Your task to perform on an android device: Clear the shopping cart on costco.com. Search for "dell xps" on costco.com, select the first entry, add it to the cart, then select checkout. Image 0: 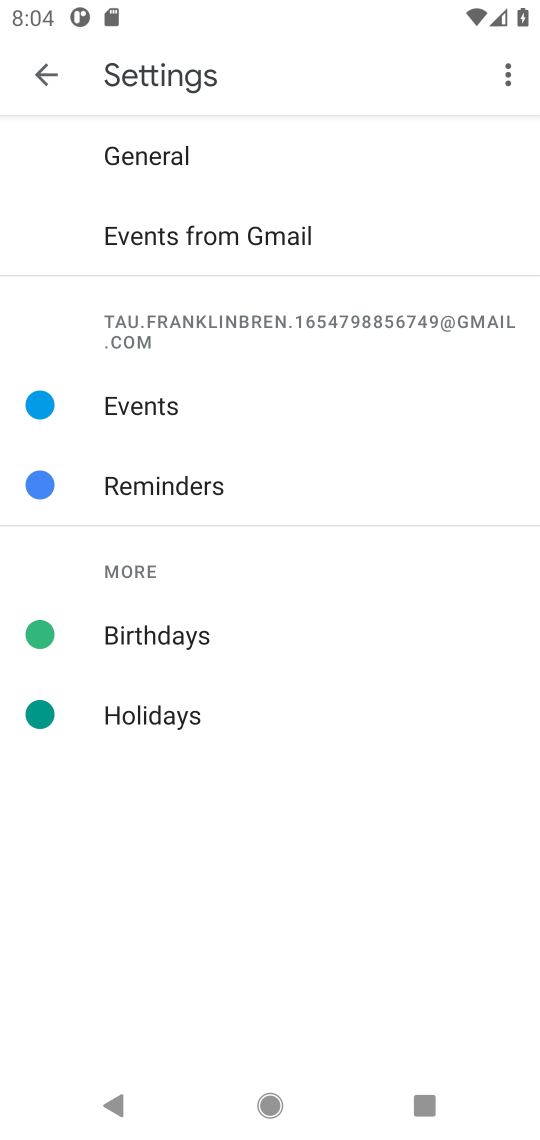
Step 0: press home button
Your task to perform on an android device: Clear the shopping cart on costco.com. Search for "dell xps" on costco.com, select the first entry, add it to the cart, then select checkout. Image 1: 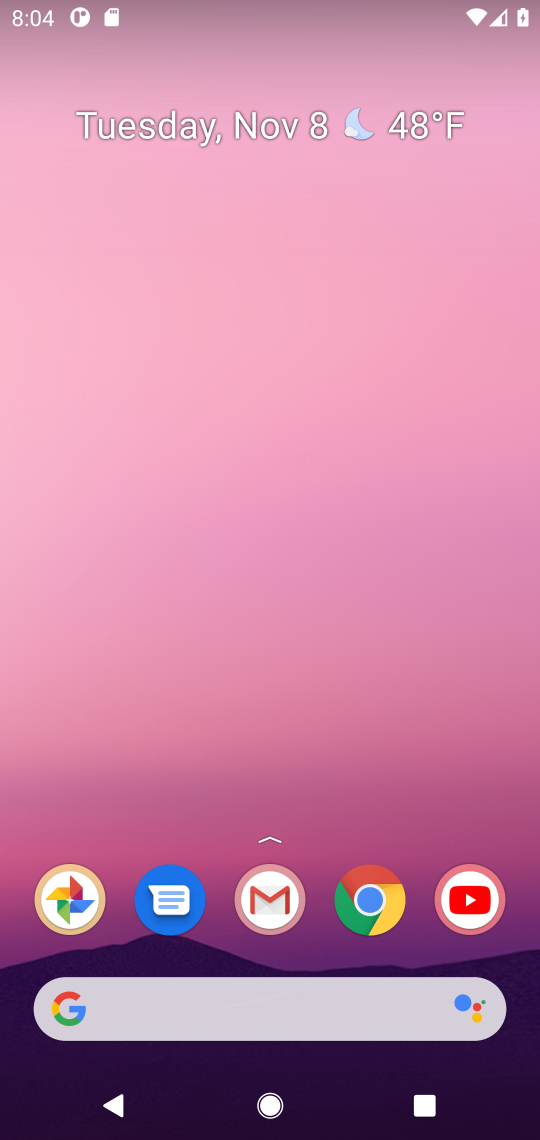
Step 1: drag from (216, 969) to (260, 119)
Your task to perform on an android device: Clear the shopping cart on costco.com. Search for "dell xps" on costco.com, select the first entry, add it to the cart, then select checkout. Image 2: 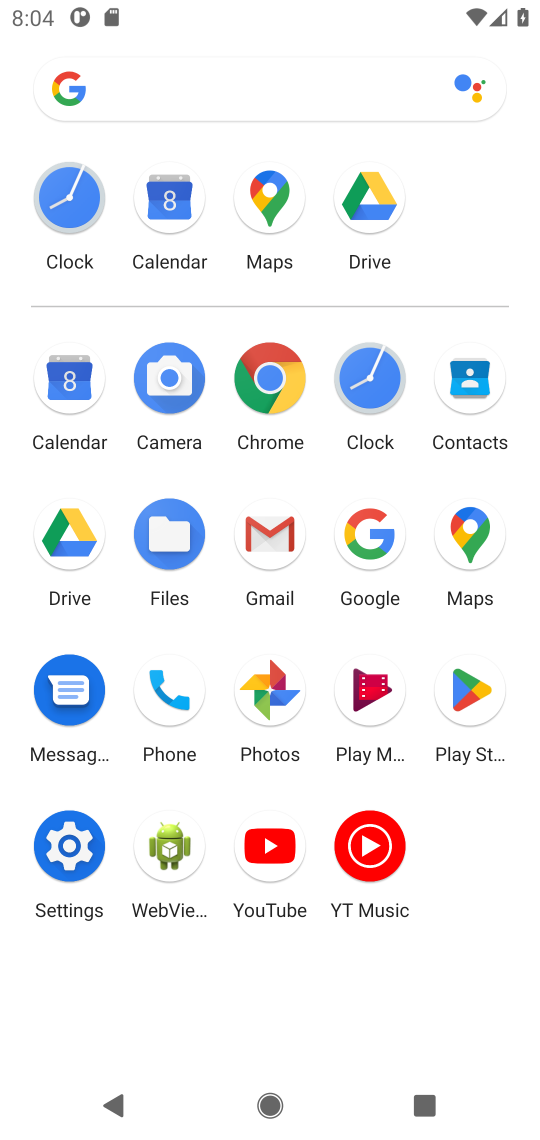
Step 2: click (377, 521)
Your task to perform on an android device: Clear the shopping cart on costco.com. Search for "dell xps" on costco.com, select the first entry, add it to the cart, then select checkout. Image 3: 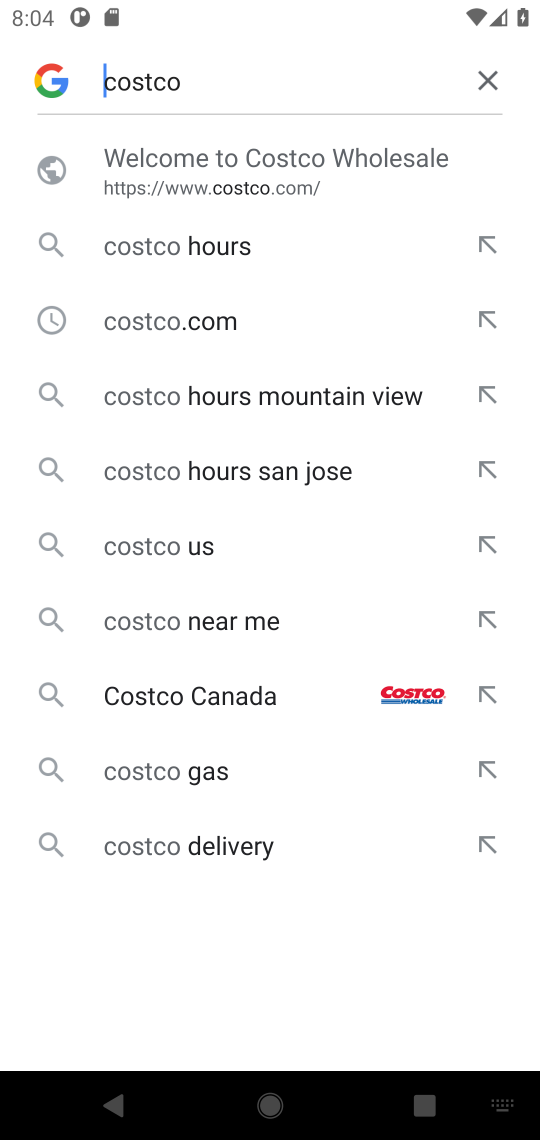
Step 3: click (348, 163)
Your task to perform on an android device: Clear the shopping cart on costco.com. Search for "dell xps" on costco.com, select the first entry, add it to the cart, then select checkout. Image 4: 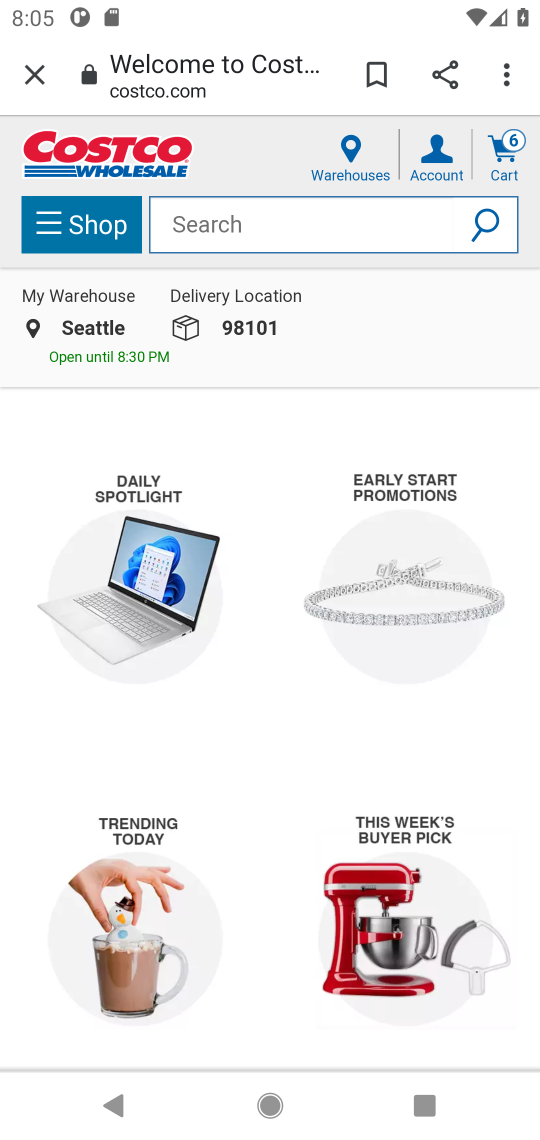
Step 4: click (261, 212)
Your task to perform on an android device: Clear the shopping cart on costco.com. Search for "dell xps" on costco.com, select the first entry, add it to the cart, then select checkout. Image 5: 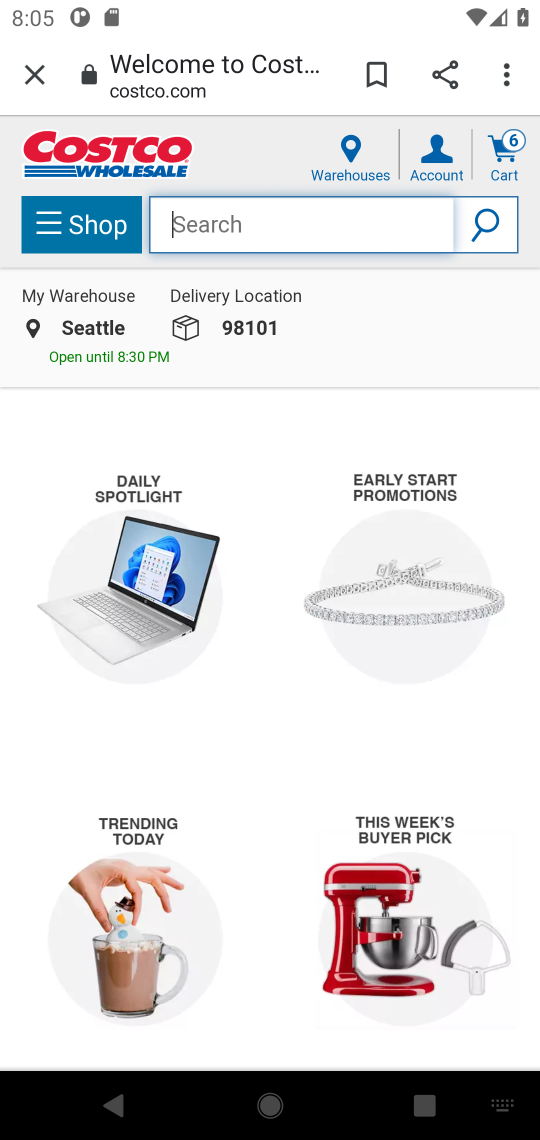
Step 5: click (213, 202)
Your task to perform on an android device: Clear the shopping cart on costco.com. Search for "dell xps" on costco.com, select the first entry, add it to the cart, then select checkout. Image 6: 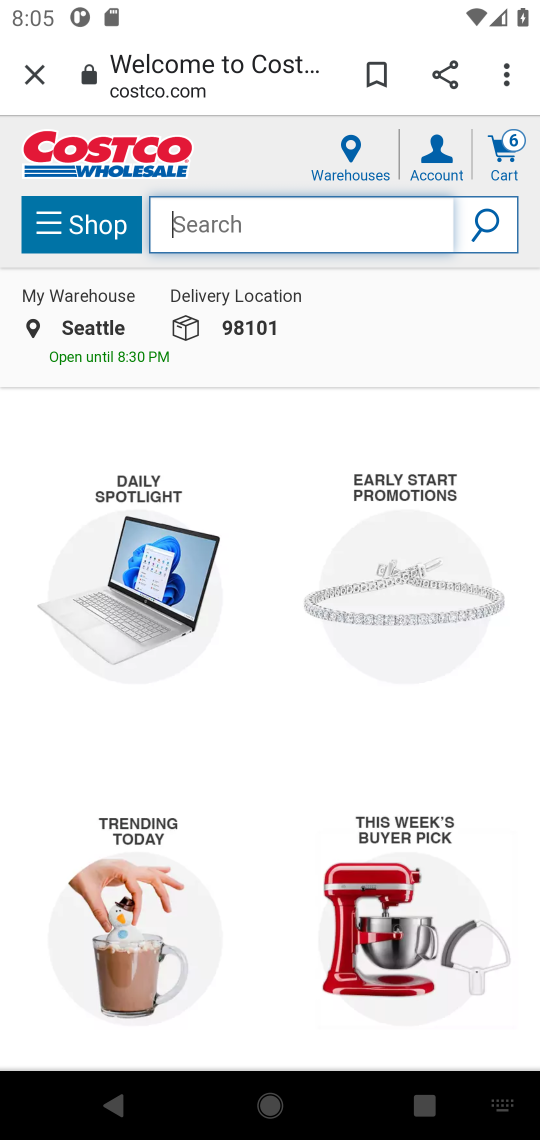
Step 6: type "dell xps "
Your task to perform on an android device: Clear the shopping cart on costco.com. Search for "dell xps" on costco.com, select the first entry, add it to the cart, then select checkout. Image 7: 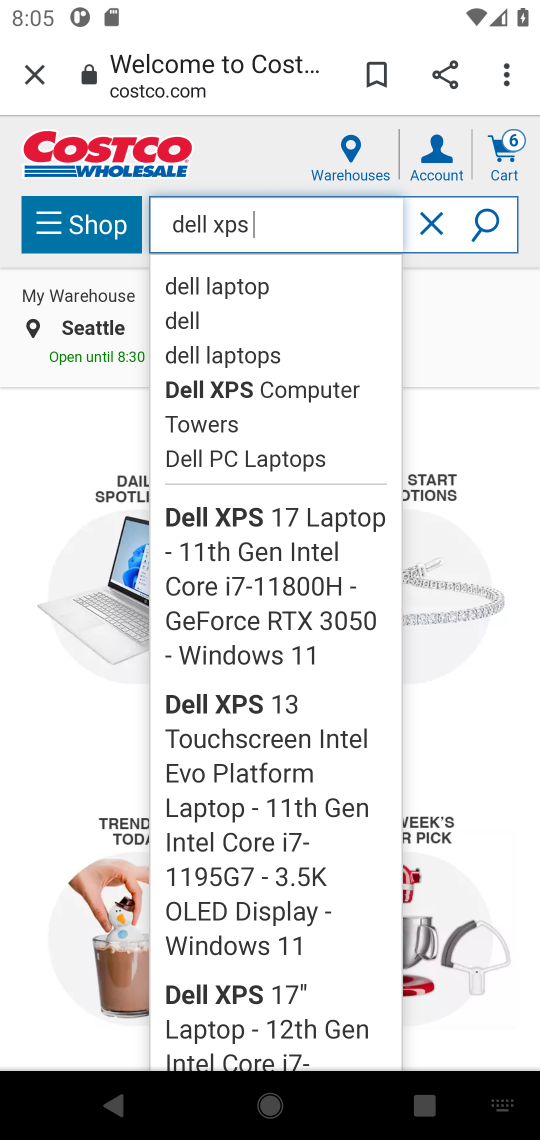
Step 7: drag from (238, 493) to (253, 552)
Your task to perform on an android device: Clear the shopping cart on costco.com. Search for "dell xps" on costco.com, select the first entry, add it to the cart, then select checkout. Image 8: 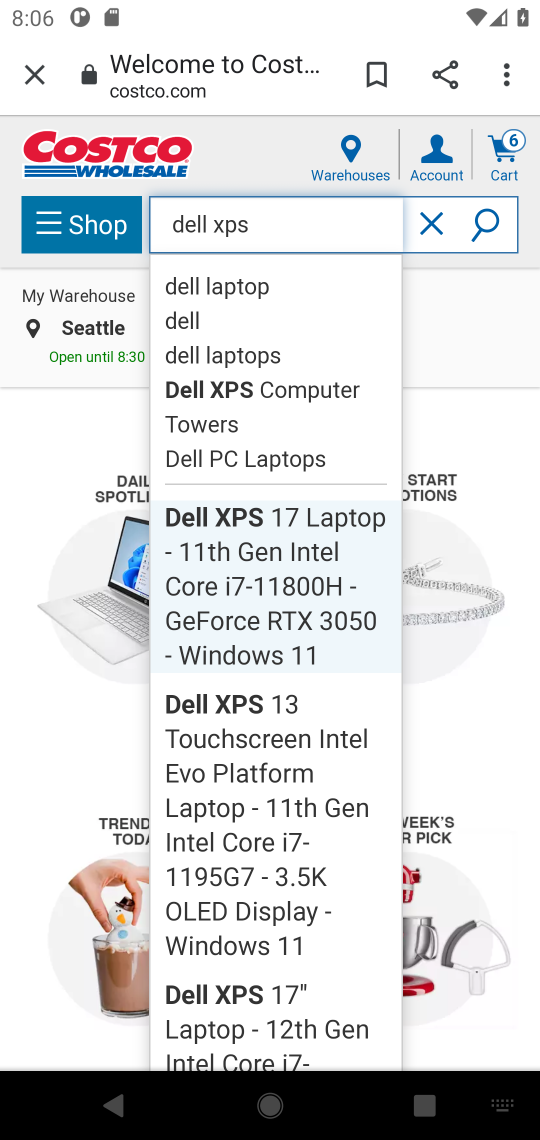
Step 8: click (208, 542)
Your task to perform on an android device: Clear the shopping cart on costco.com. Search for "dell xps" on costco.com, select the first entry, add it to the cart, then select checkout. Image 9: 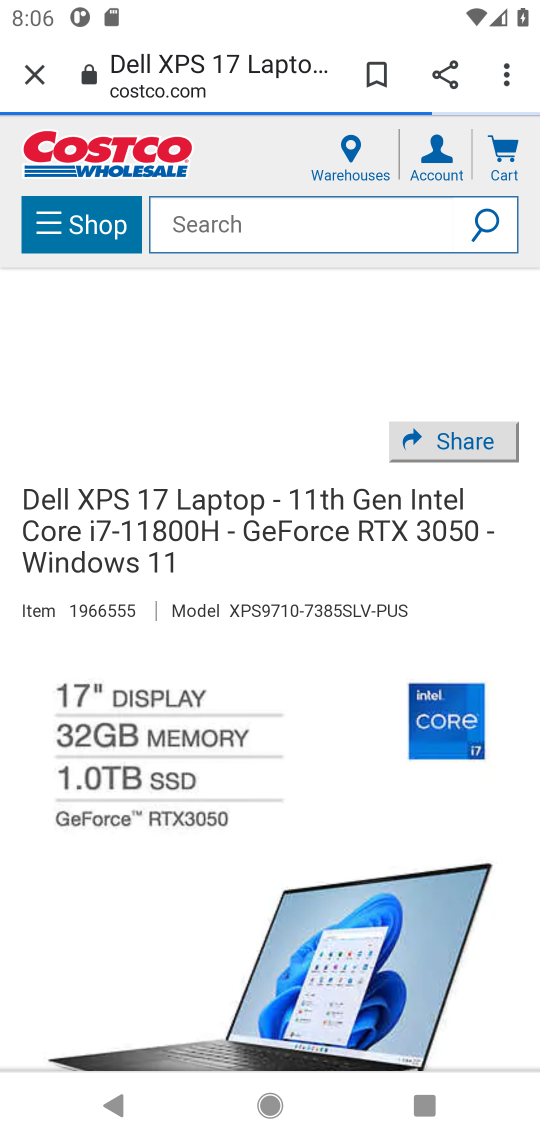
Step 9: drag from (311, 911) to (307, 332)
Your task to perform on an android device: Clear the shopping cart on costco.com. Search for "dell xps" on costco.com, select the first entry, add it to the cart, then select checkout. Image 10: 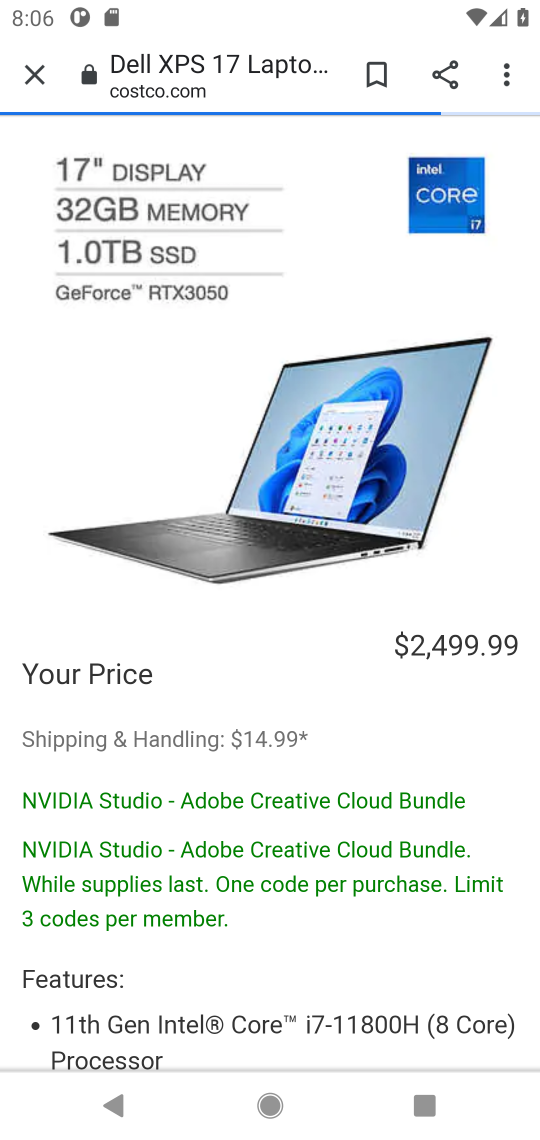
Step 10: drag from (312, 878) to (321, 241)
Your task to perform on an android device: Clear the shopping cart on costco.com. Search for "dell xps" on costco.com, select the first entry, add it to the cart, then select checkout. Image 11: 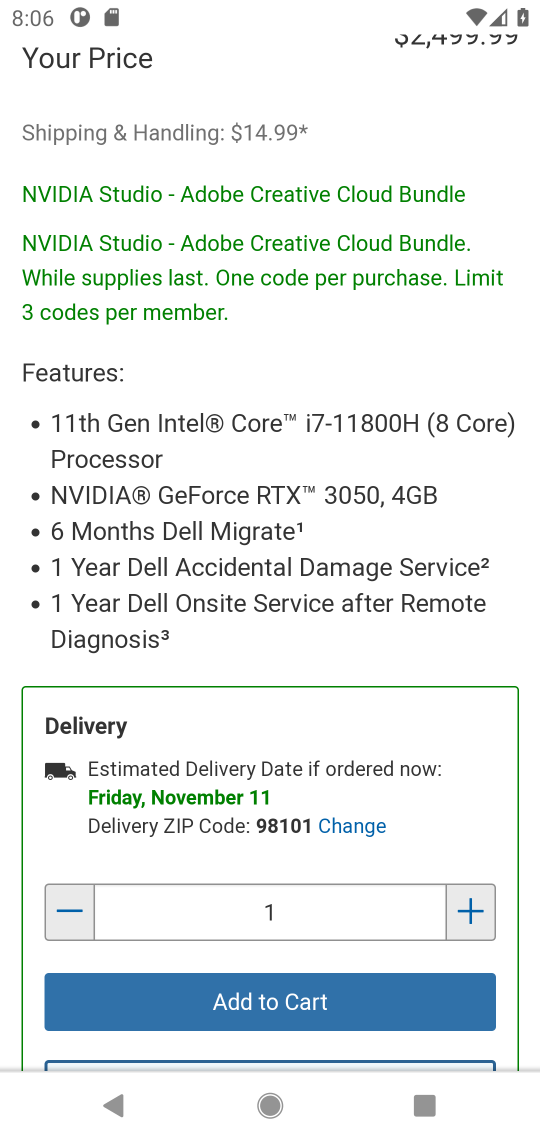
Step 11: drag from (314, 802) to (382, 187)
Your task to perform on an android device: Clear the shopping cart on costco.com. Search for "dell xps" on costco.com, select the first entry, add it to the cart, then select checkout. Image 12: 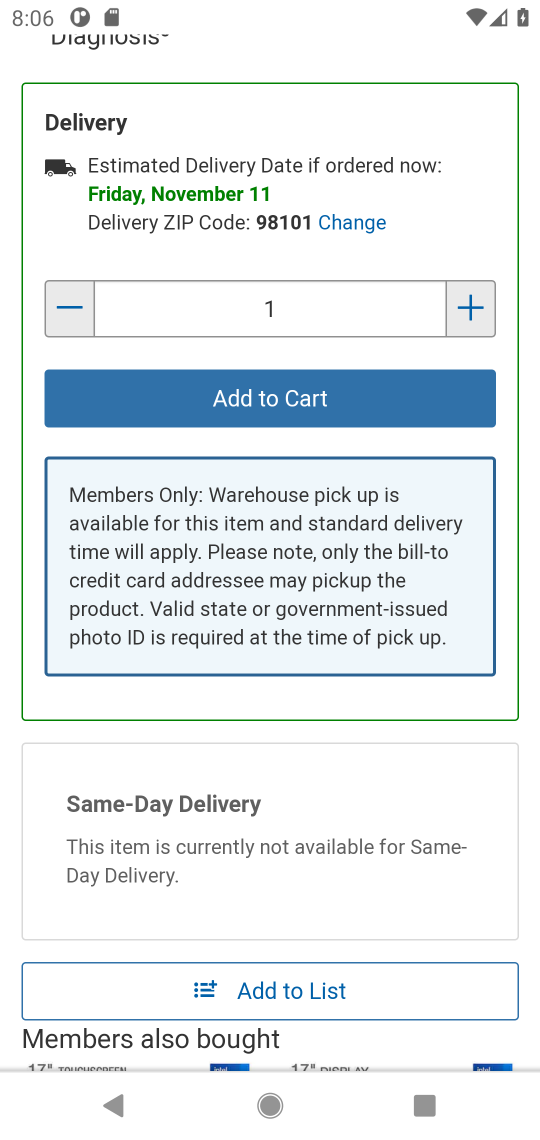
Step 12: click (279, 382)
Your task to perform on an android device: Clear the shopping cart on costco.com. Search for "dell xps" on costco.com, select the first entry, add it to the cart, then select checkout. Image 13: 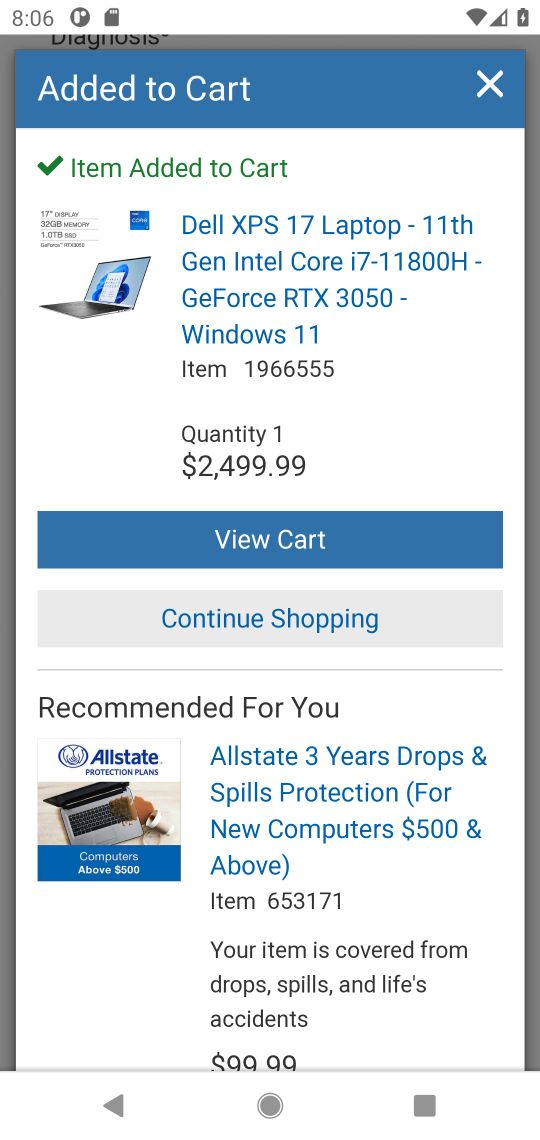
Step 13: task complete